Your task to perform on an android device: Open Chrome and go to settings Image 0: 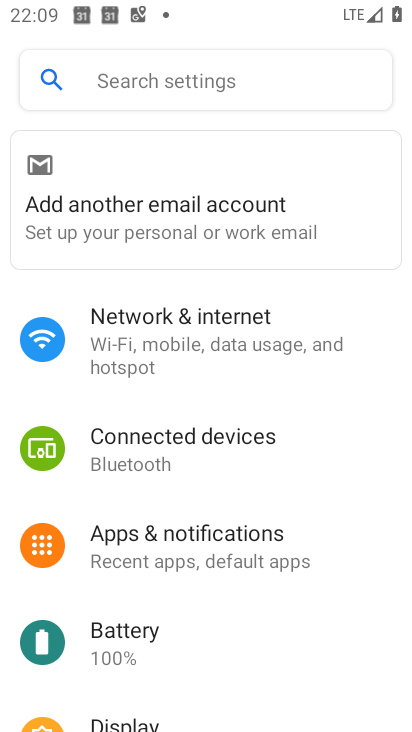
Step 0: press home button
Your task to perform on an android device: Open Chrome and go to settings Image 1: 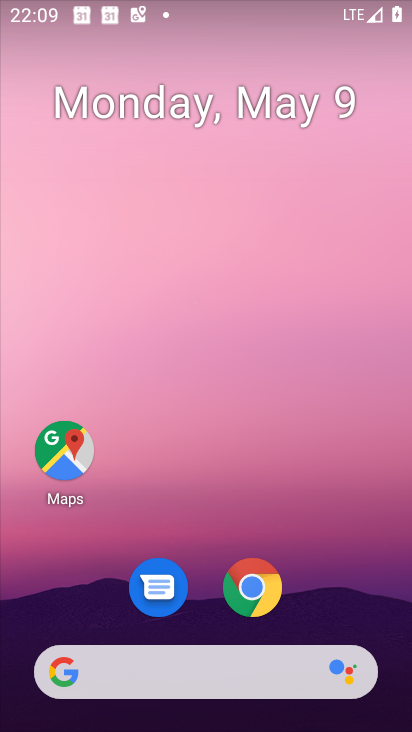
Step 1: click (255, 595)
Your task to perform on an android device: Open Chrome and go to settings Image 2: 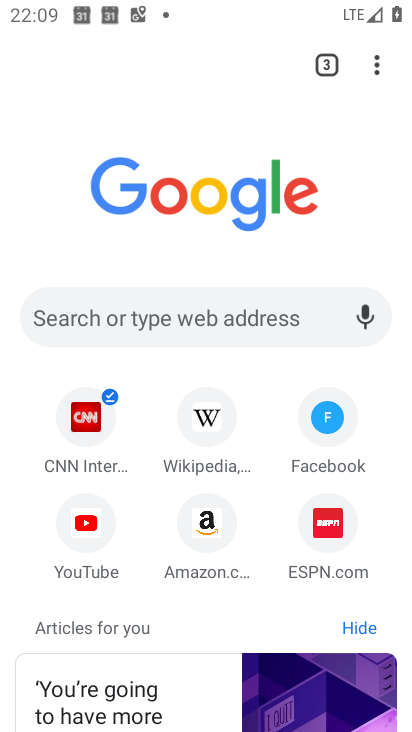
Step 2: click (370, 53)
Your task to perform on an android device: Open Chrome and go to settings Image 3: 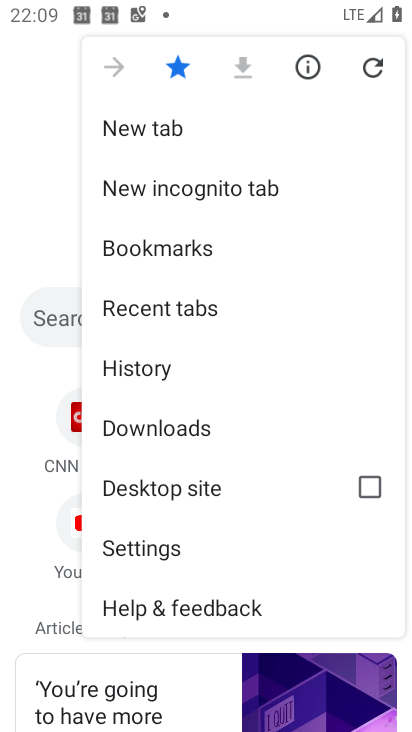
Step 3: click (133, 569)
Your task to perform on an android device: Open Chrome and go to settings Image 4: 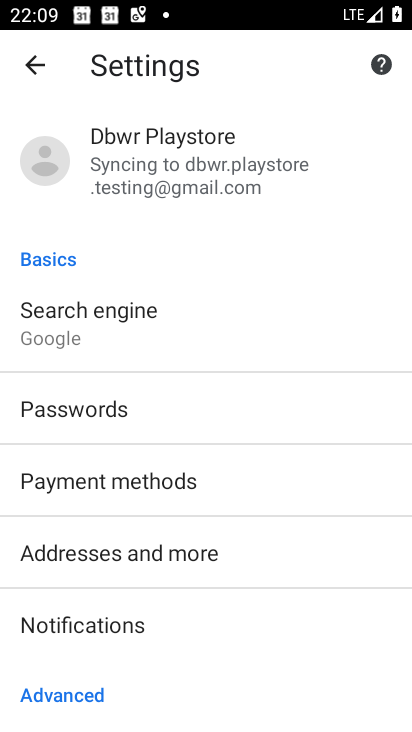
Step 4: task complete